Your task to perform on an android device: open a bookmark in the chrome app Image 0: 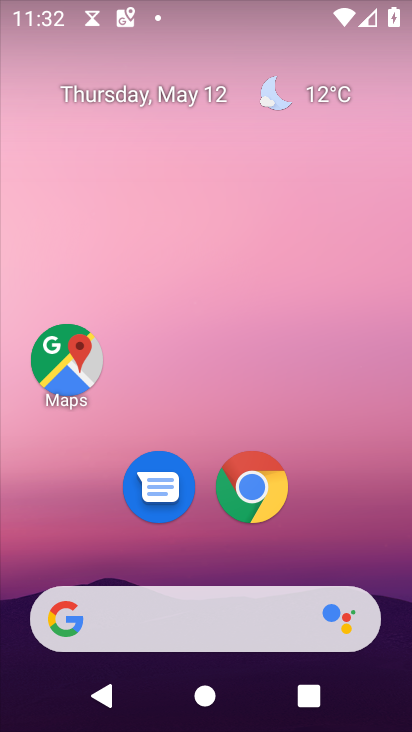
Step 0: click (257, 495)
Your task to perform on an android device: open a bookmark in the chrome app Image 1: 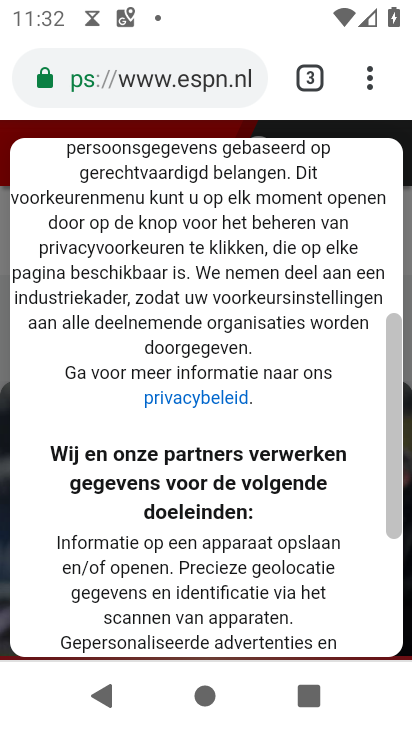
Step 1: click (374, 80)
Your task to perform on an android device: open a bookmark in the chrome app Image 2: 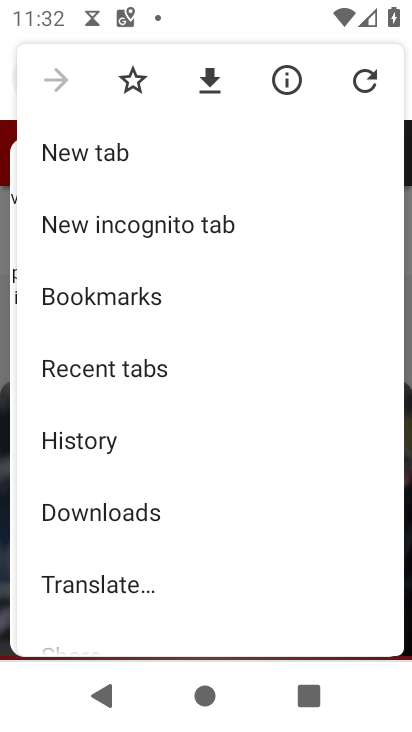
Step 2: click (99, 301)
Your task to perform on an android device: open a bookmark in the chrome app Image 3: 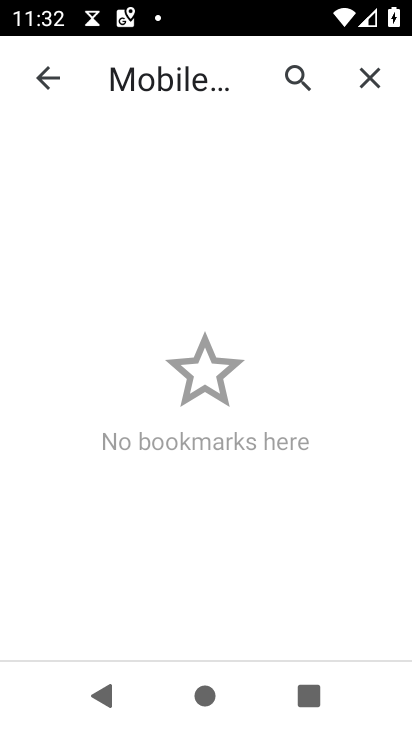
Step 3: task complete